Your task to perform on an android device: show emergency info Image 0: 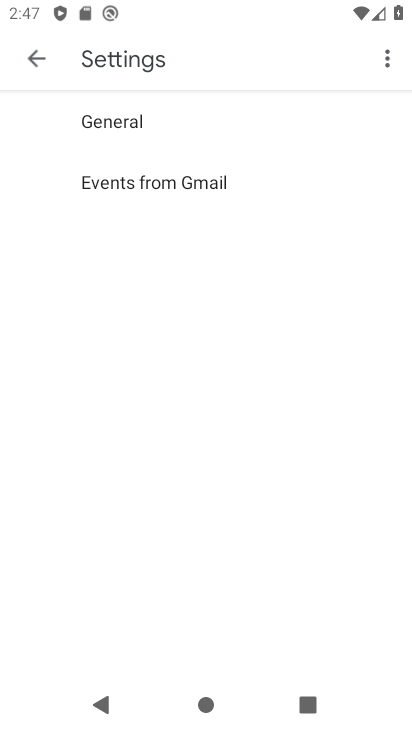
Step 0: press home button
Your task to perform on an android device: show emergency info Image 1: 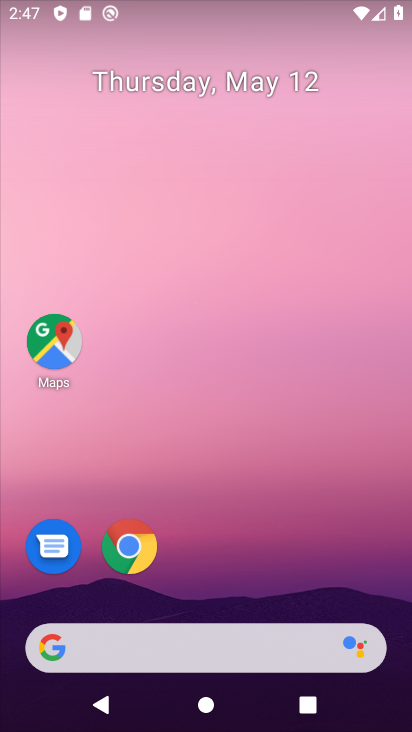
Step 1: drag from (202, 575) to (222, 218)
Your task to perform on an android device: show emergency info Image 2: 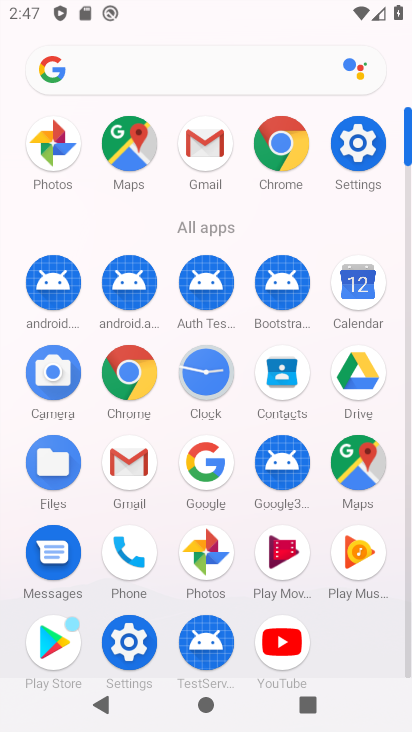
Step 2: click (351, 136)
Your task to perform on an android device: show emergency info Image 3: 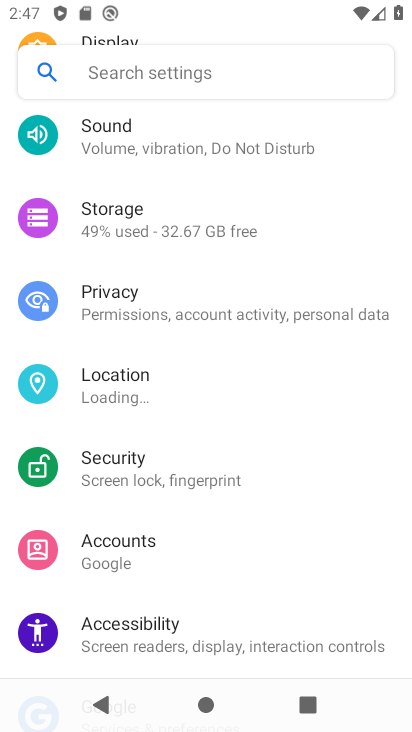
Step 3: drag from (186, 604) to (304, 196)
Your task to perform on an android device: show emergency info Image 4: 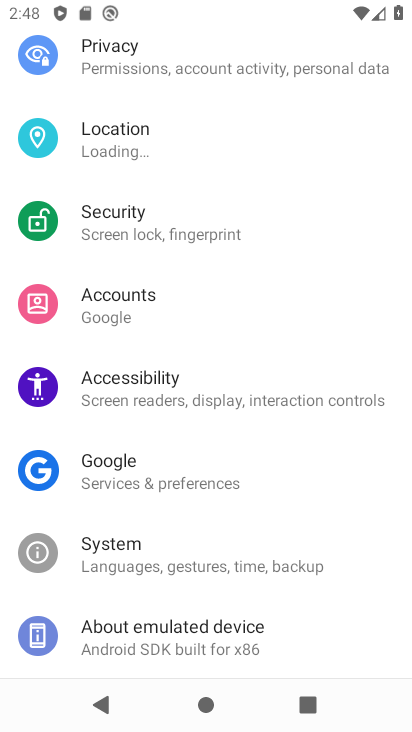
Step 4: click (117, 634)
Your task to perform on an android device: show emergency info Image 5: 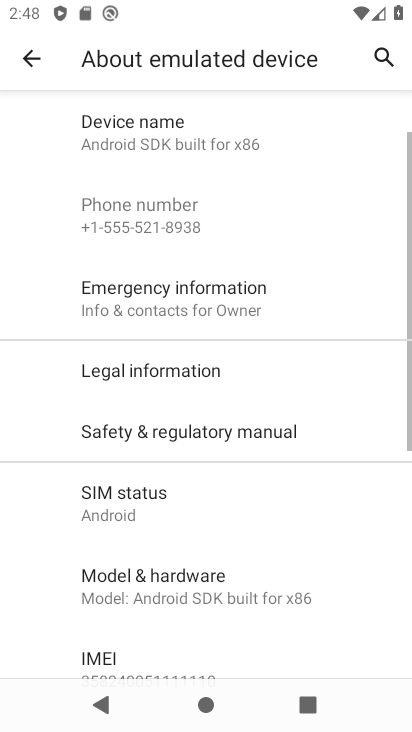
Step 5: click (150, 302)
Your task to perform on an android device: show emergency info Image 6: 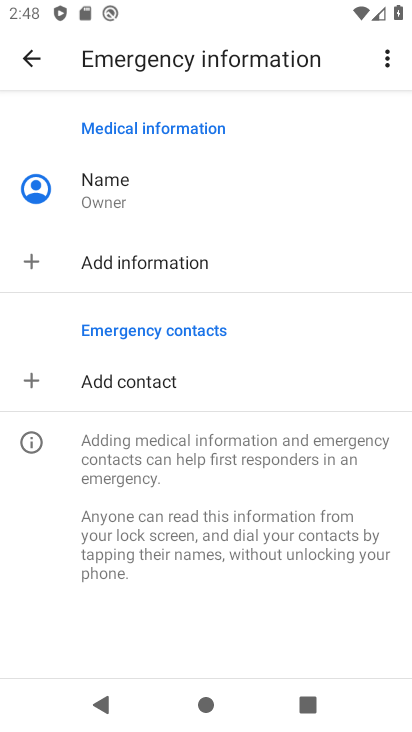
Step 6: task complete